Your task to perform on an android device: Go to display settings Image 0: 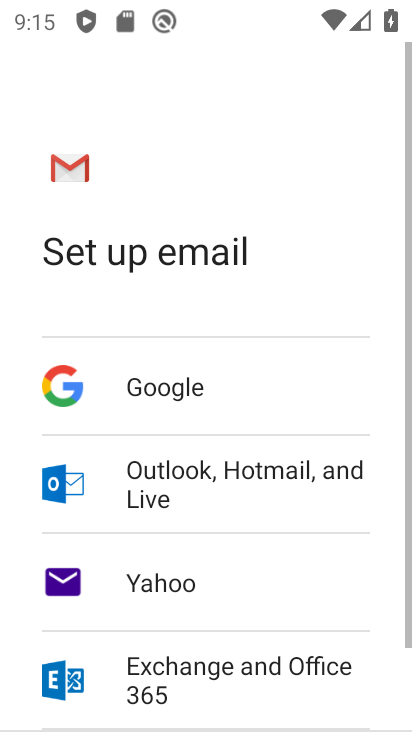
Step 0: press home button
Your task to perform on an android device: Go to display settings Image 1: 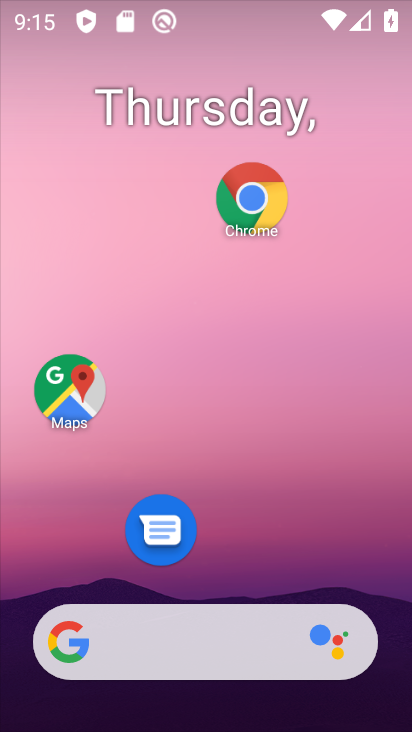
Step 1: drag from (209, 586) to (175, 122)
Your task to perform on an android device: Go to display settings Image 2: 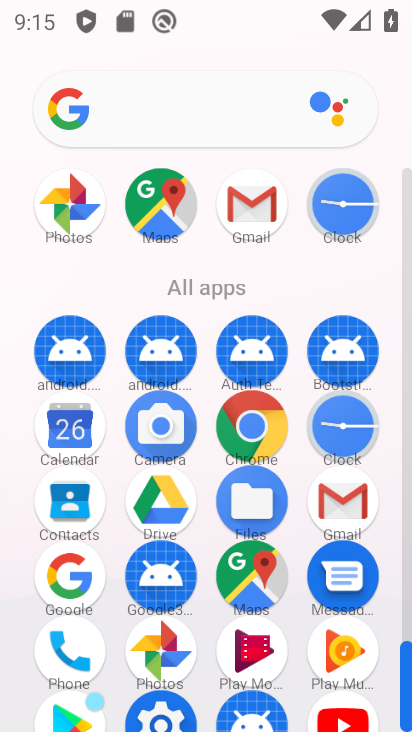
Step 2: click (163, 714)
Your task to perform on an android device: Go to display settings Image 3: 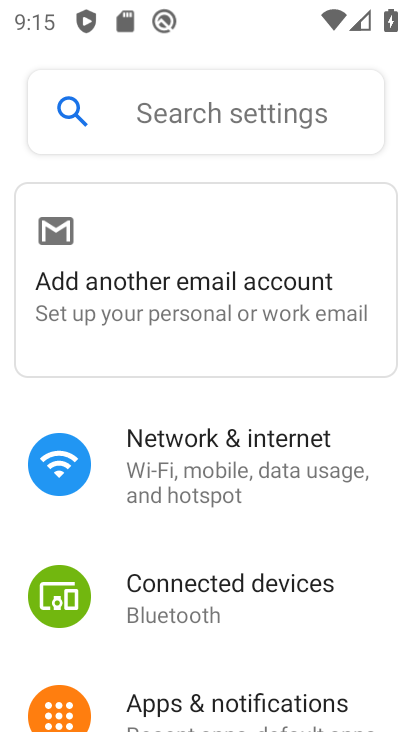
Step 3: drag from (157, 690) to (203, 146)
Your task to perform on an android device: Go to display settings Image 4: 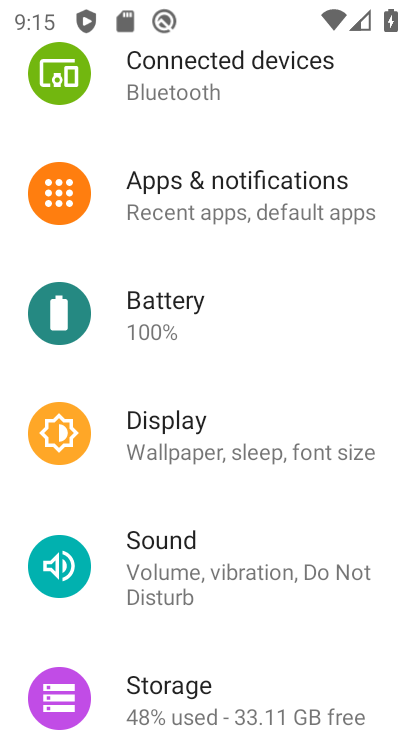
Step 4: click (190, 436)
Your task to perform on an android device: Go to display settings Image 5: 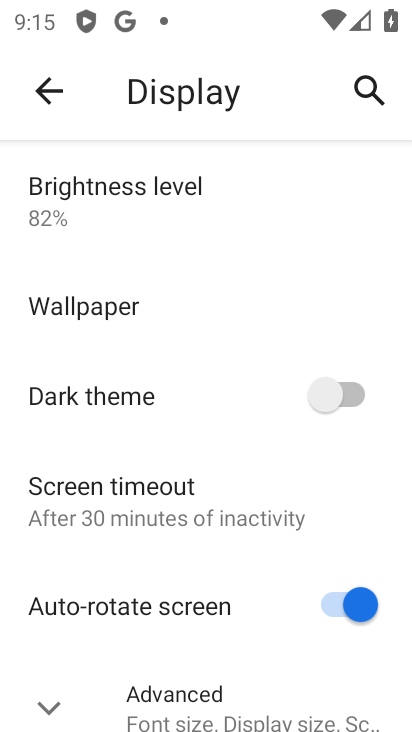
Step 5: task complete